Your task to perform on an android device: Add asus rog to the cart on bestbuy.com, then select checkout. Image 0: 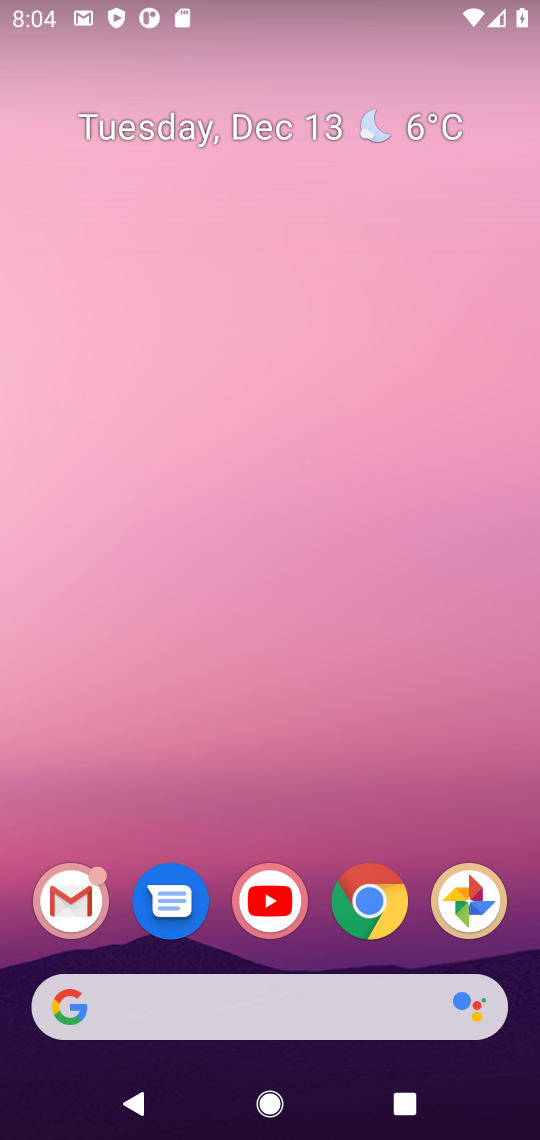
Step 0: click (356, 891)
Your task to perform on an android device: Add asus rog to the cart on bestbuy.com, then select checkout. Image 1: 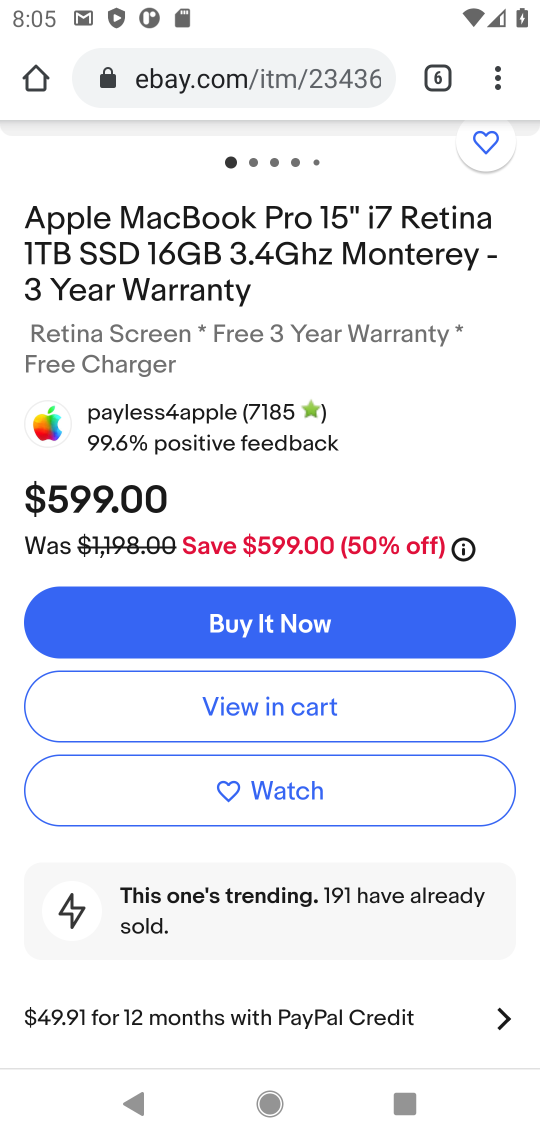
Step 1: click (427, 80)
Your task to perform on an android device: Add asus rog to the cart on bestbuy.com, then select checkout. Image 2: 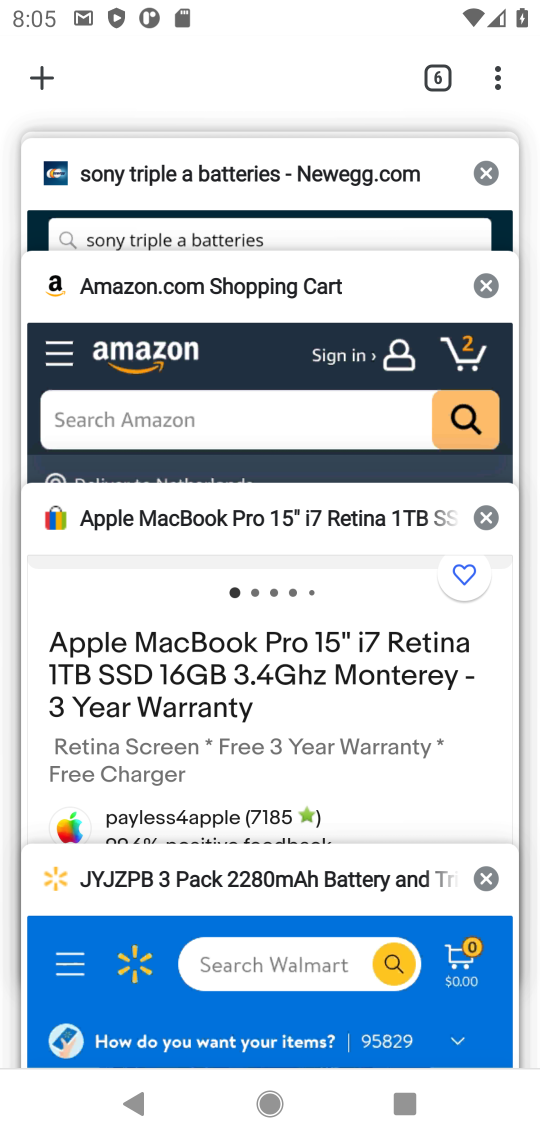
Step 2: drag from (326, 170) to (304, 402)
Your task to perform on an android device: Add asus rog to the cart on bestbuy.com, then select checkout. Image 3: 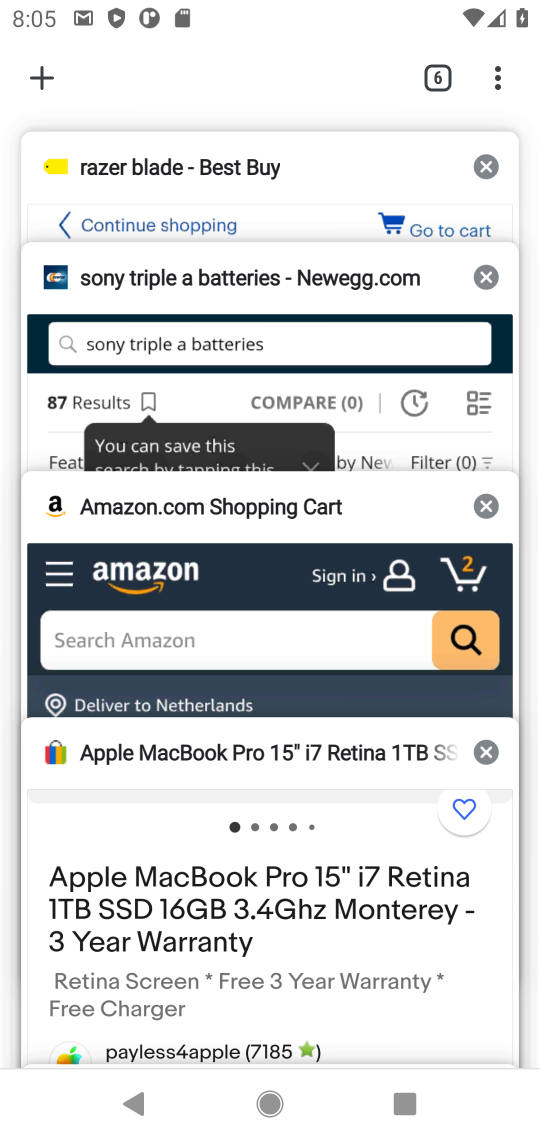
Step 3: click (307, 182)
Your task to perform on an android device: Add asus rog to the cart on bestbuy.com, then select checkout. Image 4: 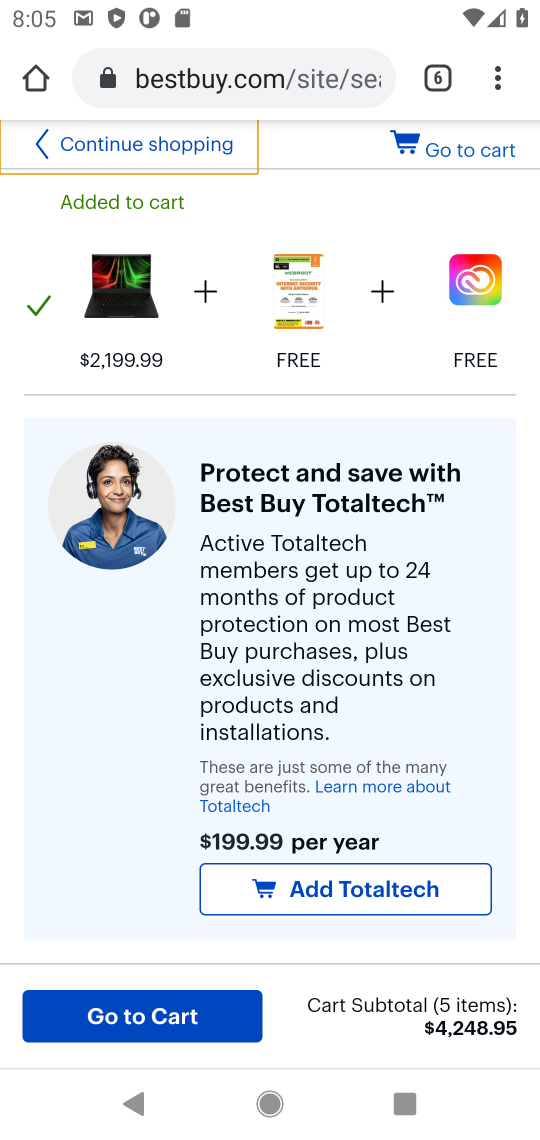
Step 4: click (194, 147)
Your task to perform on an android device: Add asus rog to the cart on bestbuy.com, then select checkout. Image 5: 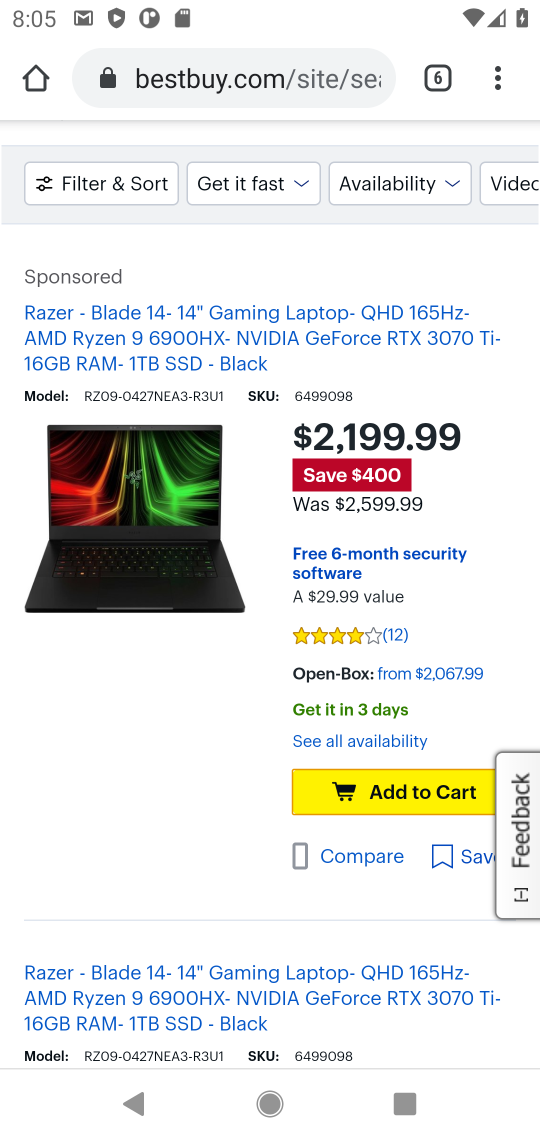
Step 5: drag from (294, 209) to (294, 605)
Your task to perform on an android device: Add asus rog to the cart on bestbuy.com, then select checkout. Image 6: 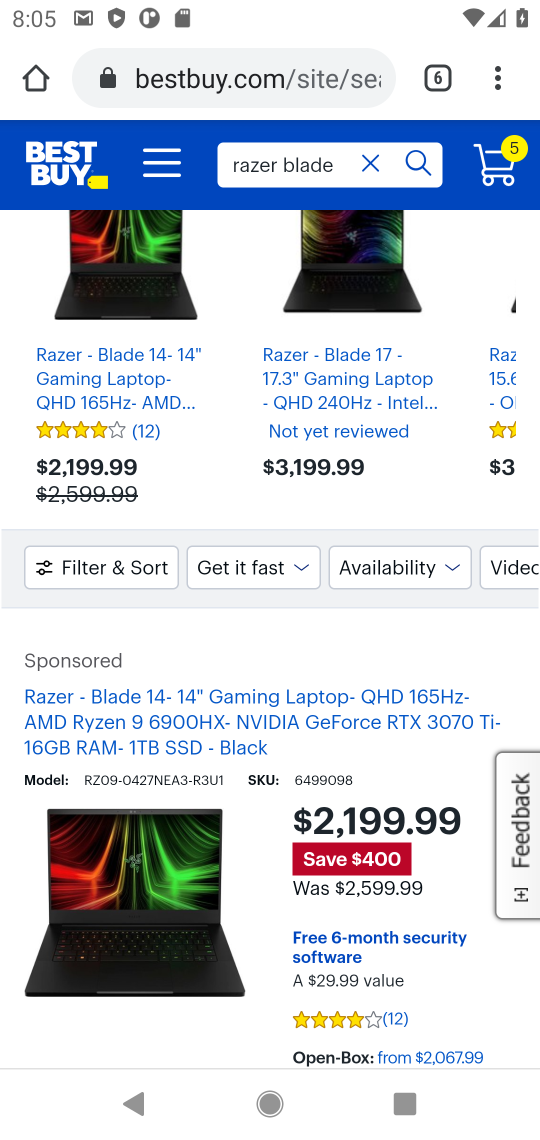
Step 6: click (370, 163)
Your task to perform on an android device: Add asus rog to the cart on bestbuy.com, then select checkout. Image 7: 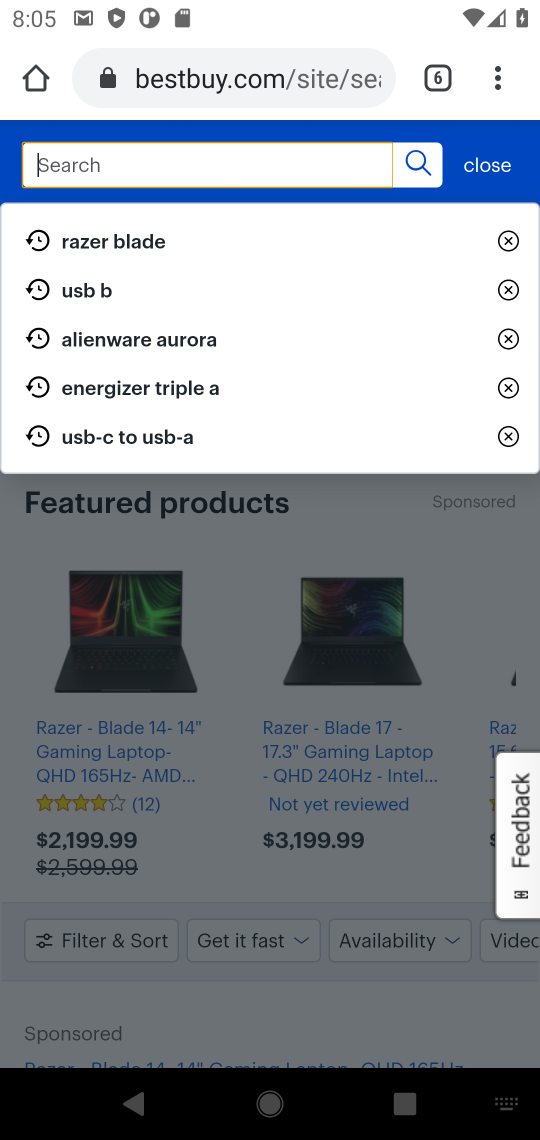
Step 7: type "asus rog"
Your task to perform on an android device: Add asus rog to the cart on bestbuy.com, then select checkout. Image 8: 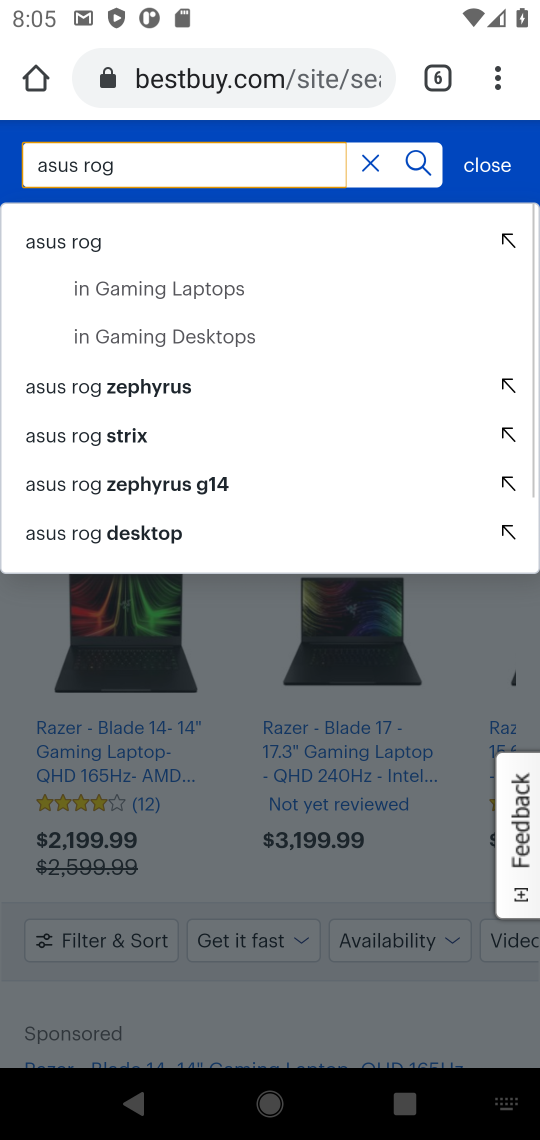
Step 8: click (65, 240)
Your task to perform on an android device: Add asus rog to the cart on bestbuy.com, then select checkout. Image 9: 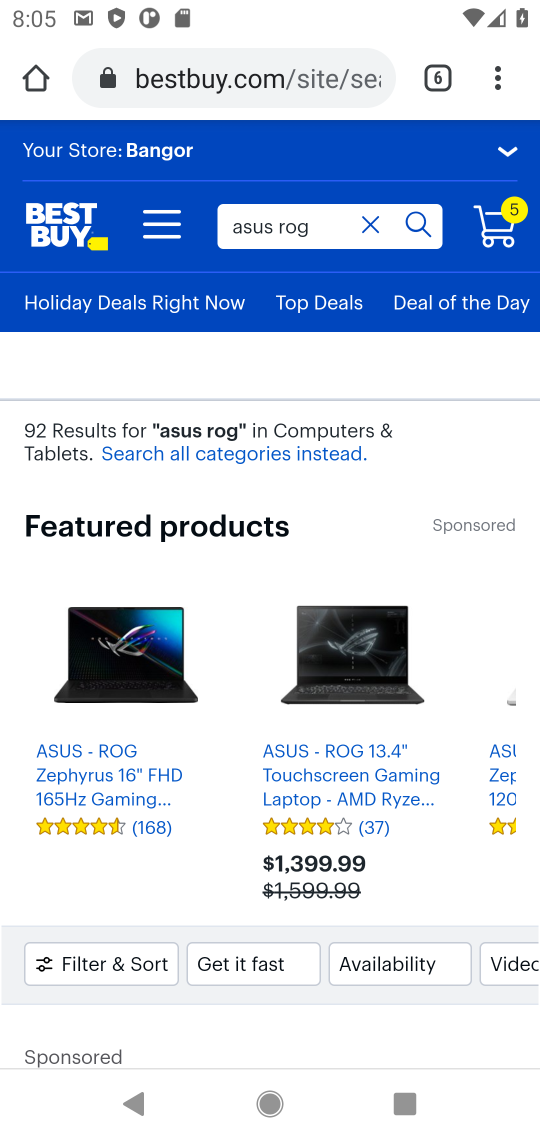
Step 9: drag from (301, 1035) to (364, 127)
Your task to perform on an android device: Add asus rog to the cart on bestbuy.com, then select checkout. Image 10: 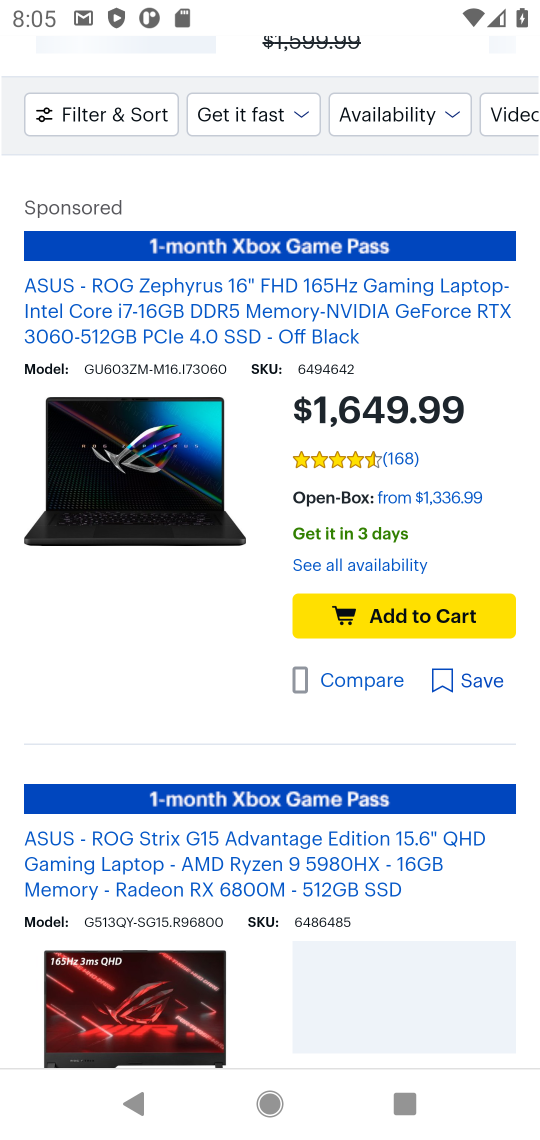
Step 10: drag from (432, 964) to (403, 515)
Your task to perform on an android device: Add asus rog to the cart on bestbuy.com, then select checkout. Image 11: 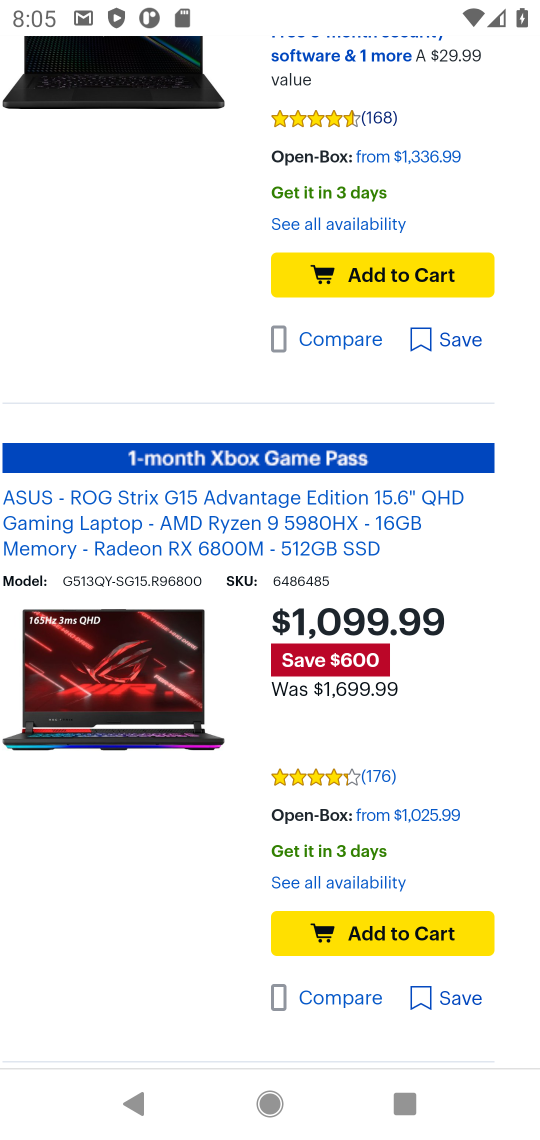
Step 11: click (381, 886)
Your task to perform on an android device: Add asus rog to the cart on bestbuy.com, then select checkout. Image 12: 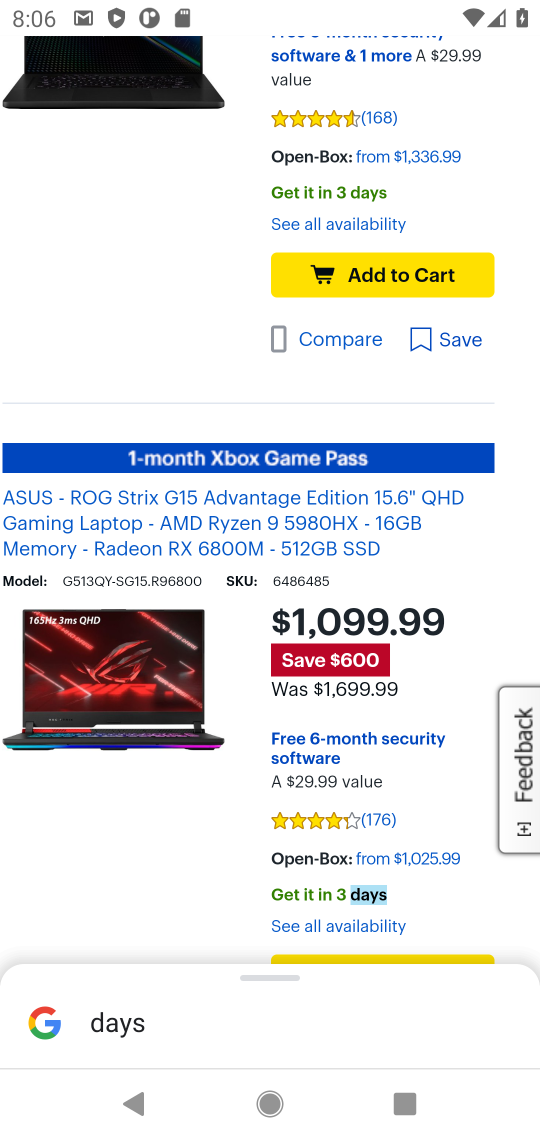
Step 12: click (439, 887)
Your task to perform on an android device: Add asus rog to the cart on bestbuy.com, then select checkout. Image 13: 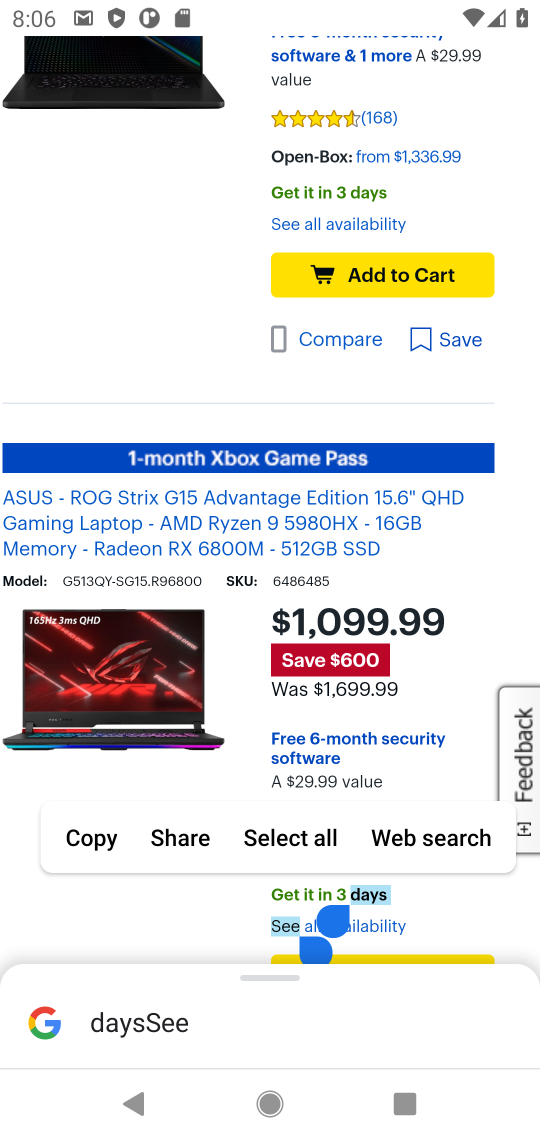
Step 13: click (185, 939)
Your task to perform on an android device: Add asus rog to the cart on bestbuy.com, then select checkout. Image 14: 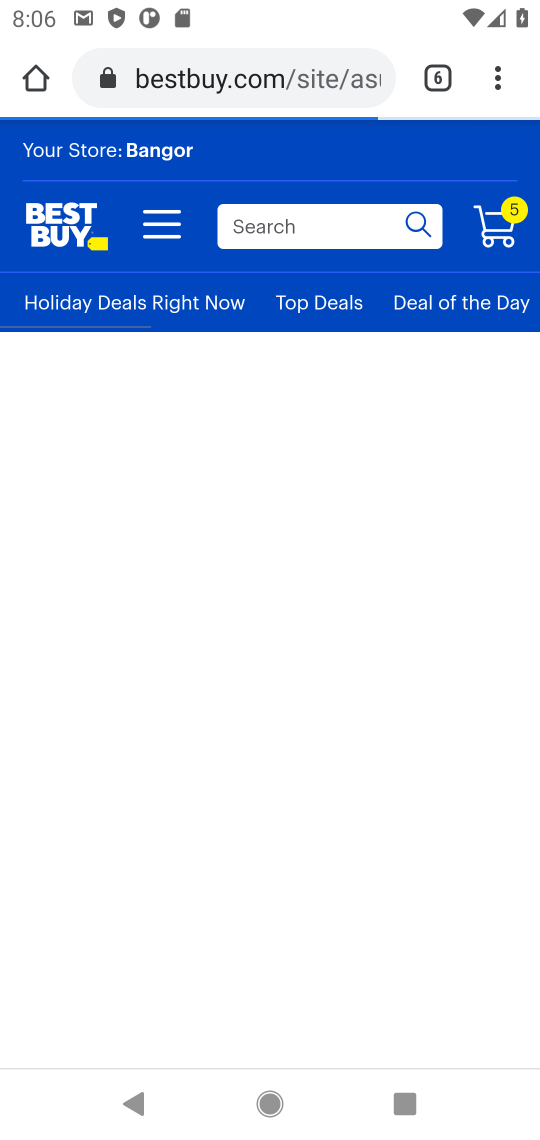
Step 14: click (323, 970)
Your task to perform on an android device: Add asus rog to the cart on bestbuy.com, then select checkout. Image 15: 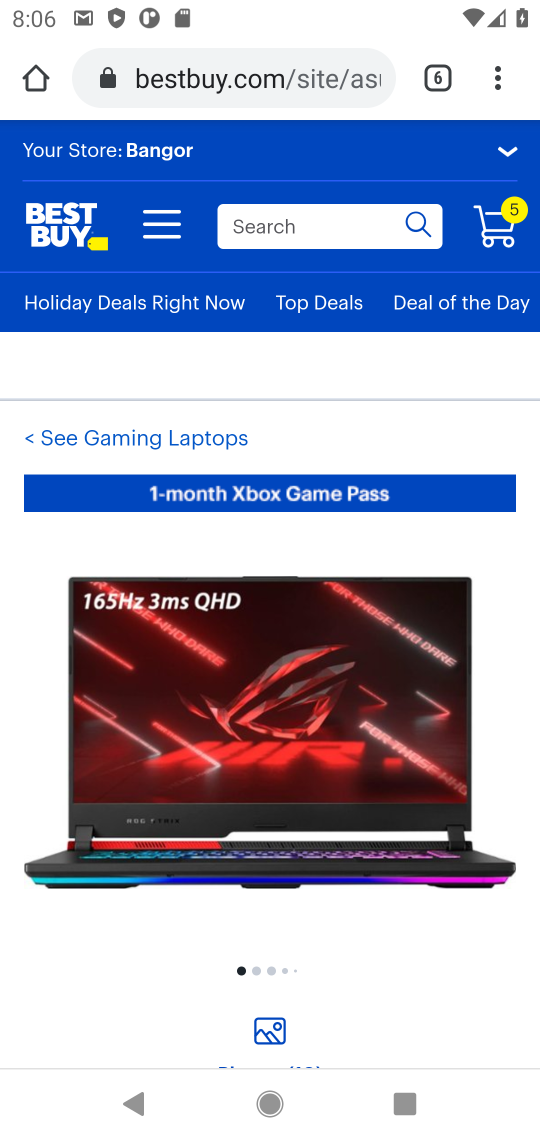
Step 15: drag from (323, 970) to (355, 482)
Your task to perform on an android device: Add asus rog to the cart on bestbuy.com, then select checkout. Image 16: 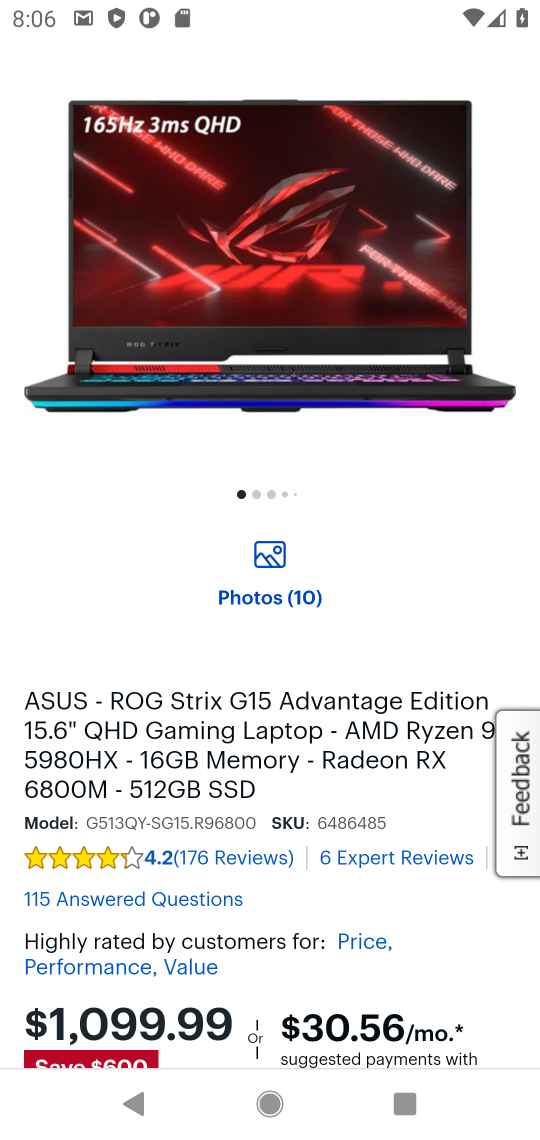
Step 16: drag from (345, 917) to (388, 555)
Your task to perform on an android device: Add asus rog to the cart on bestbuy.com, then select checkout. Image 17: 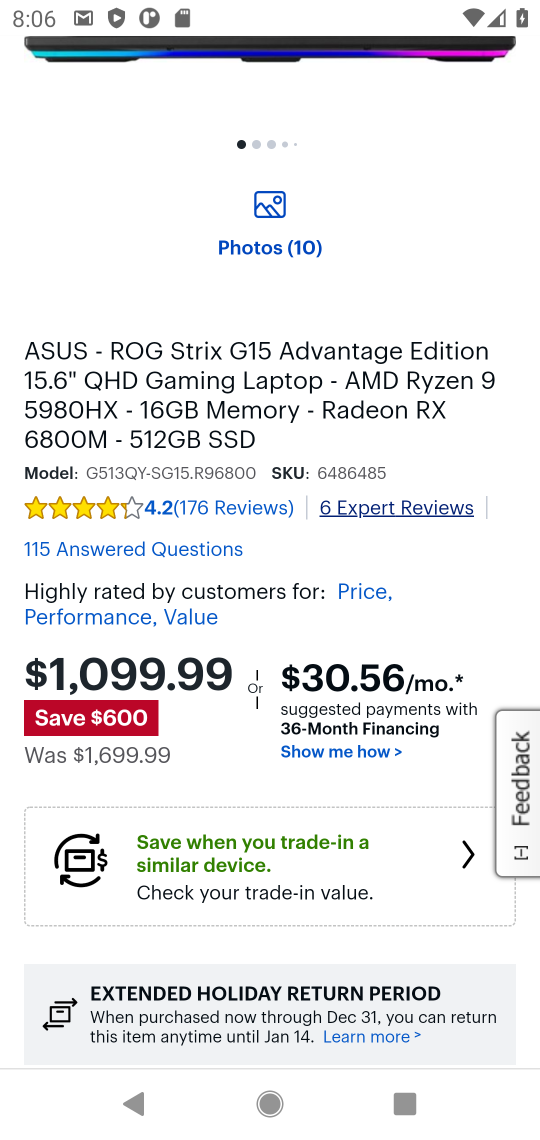
Step 17: drag from (270, 982) to (320, 335)
Your task to perform on an android device: Add asus rog to the cart on bestbuy.com, then select checkout. Image 18: 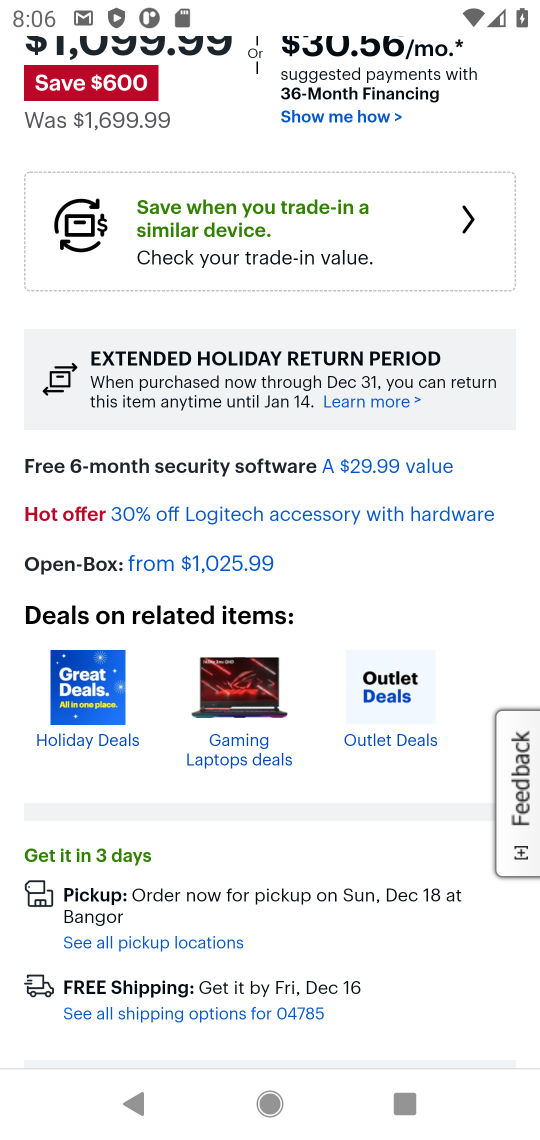
Step 18: drag from (360, 937) to (394, 498)
Your task to perform on an android device: Add asus rog to the cart on bestbuy.com, then select checkout. Image 19: 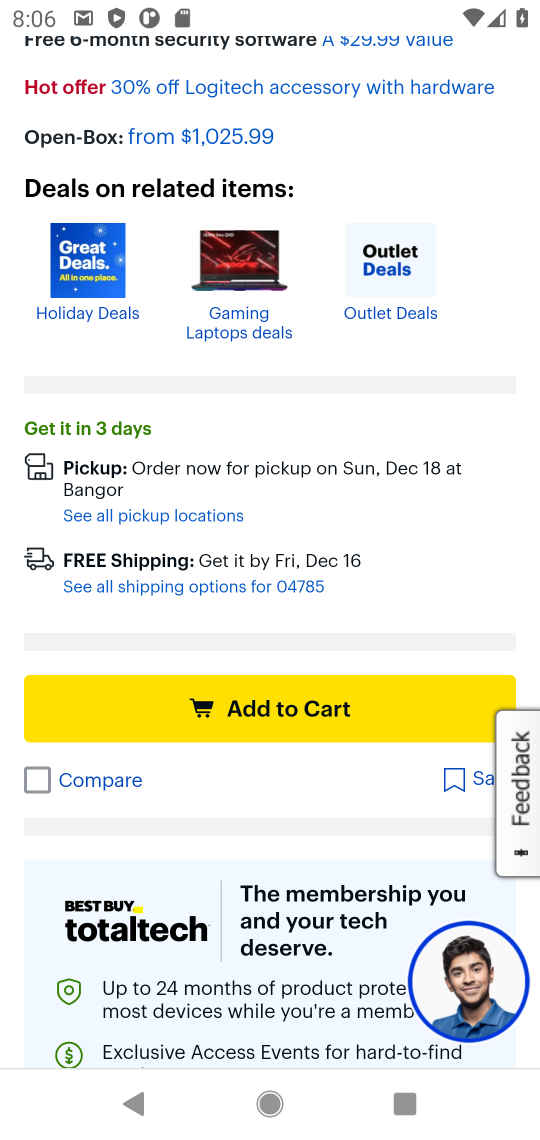
Step 19: click (322, 710)
Your task to perform on an android device: Add asus rog to the cart on bestbuy.com, then select checkout. Image 20: 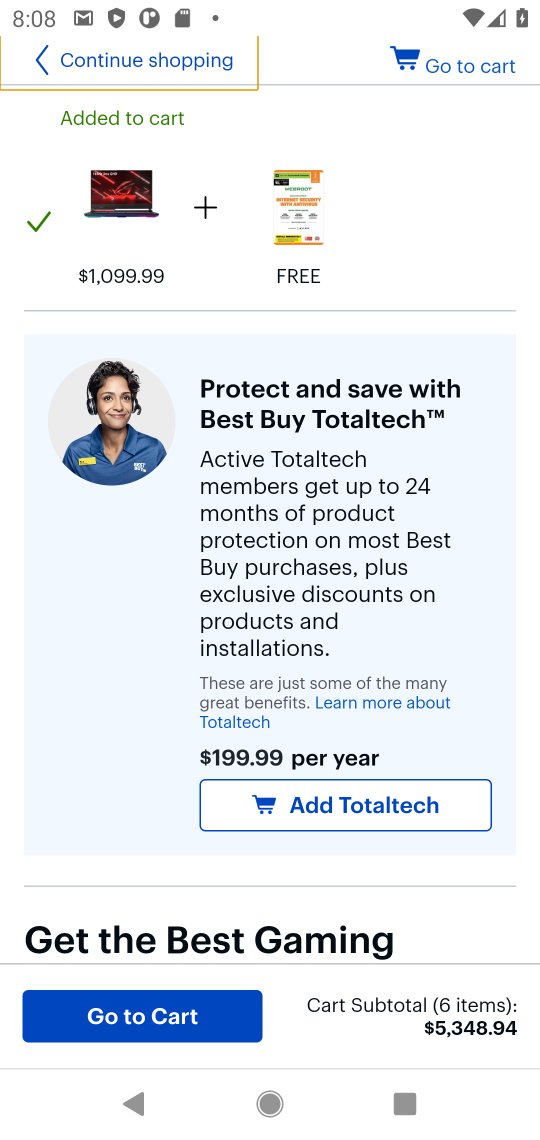
Step 20: task complete